Your task to perform on an android device: change the clock style Image 0: 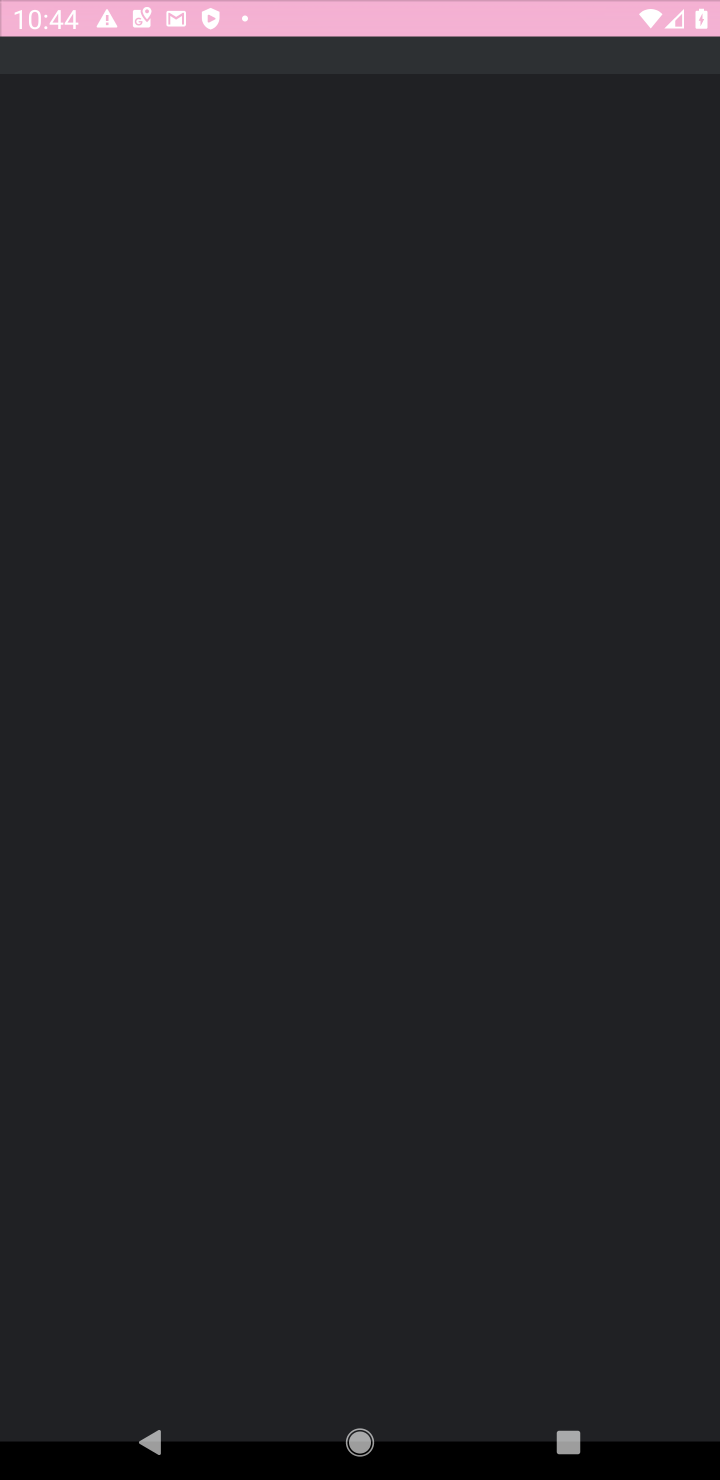
Step 0: press home button
Your task to perform on an android device: change the clock style Image 1: 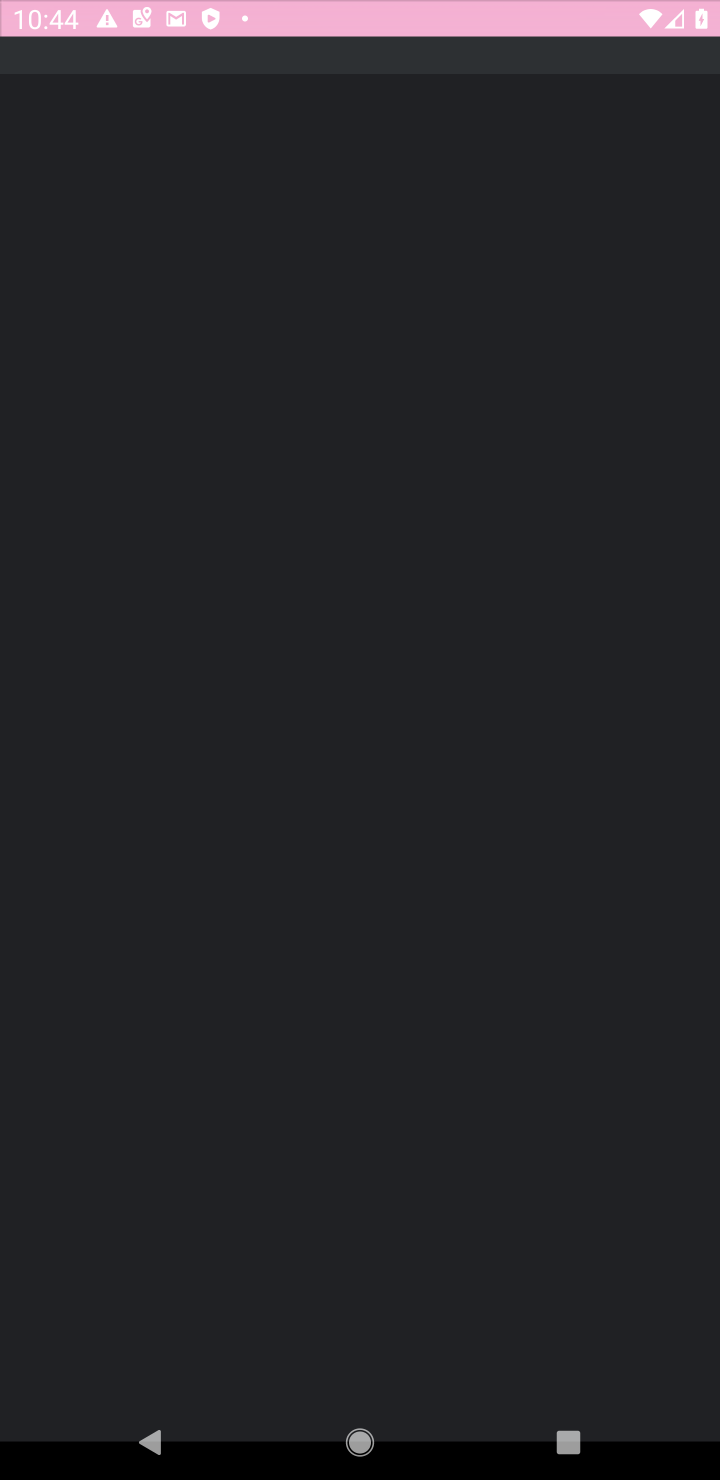
Step 1: click (525, 399)
Your task to perform on an android device: change the clock style Image 2: 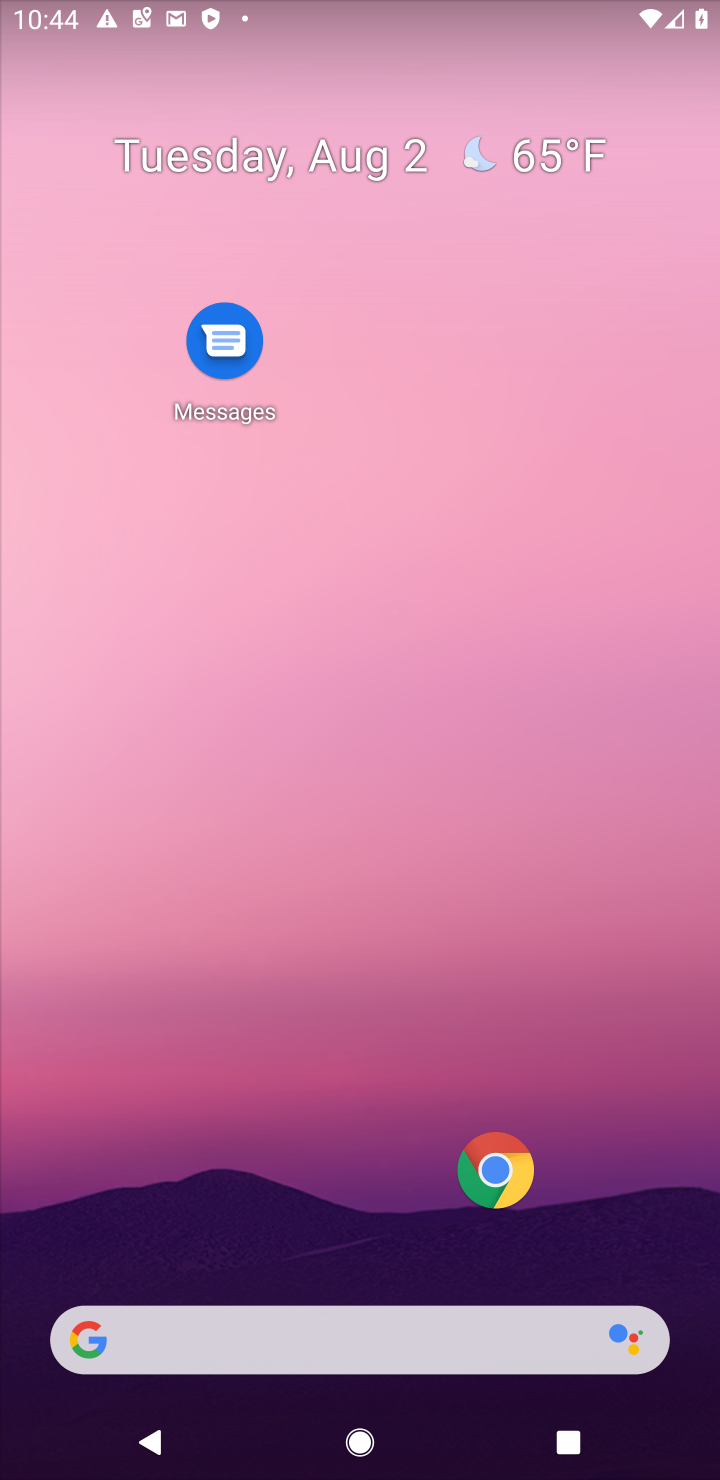
Step 2: drag from (285, 946) to (409, 364)
Your task to perform on an android device: change the clock style Image 3: 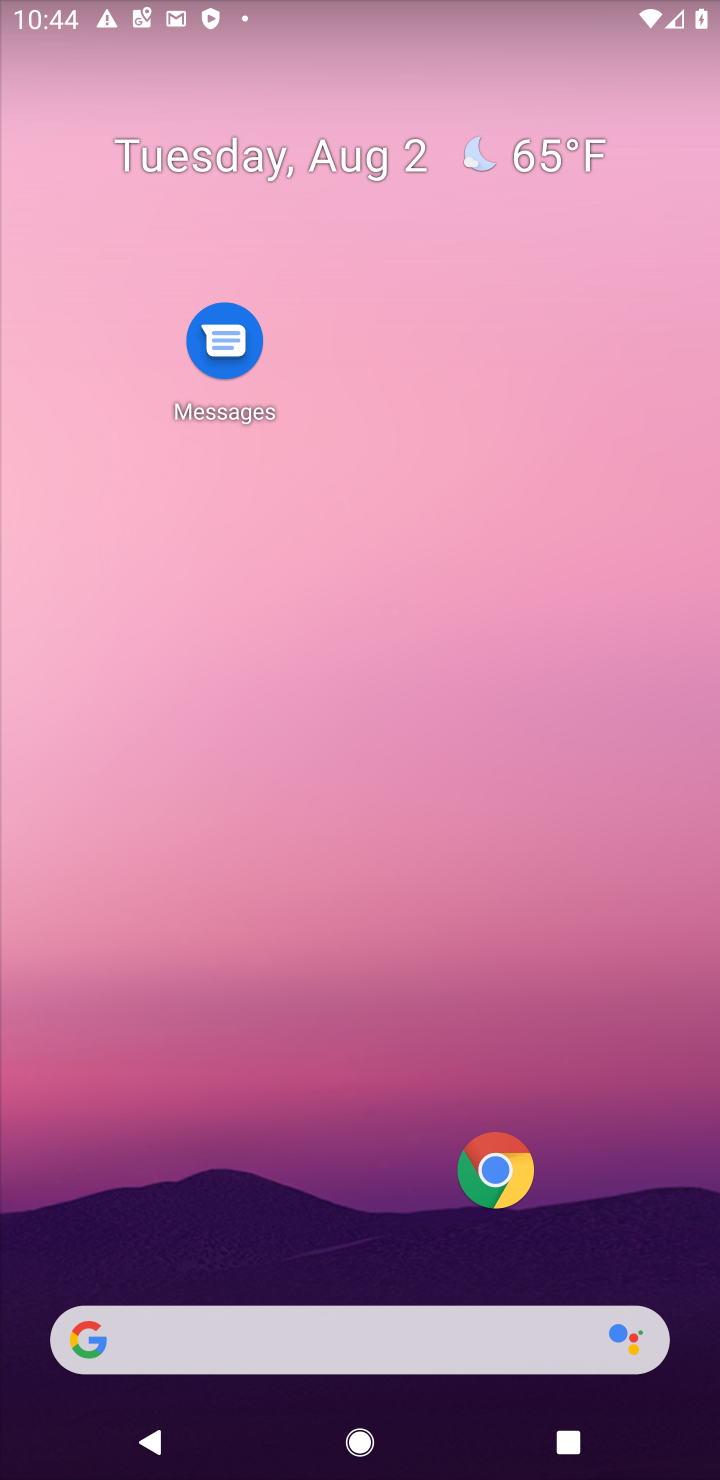
Step 3: drag from (366, 1188) to (289, 457)
Your task to perform on an android device: change the clock style Image 4: 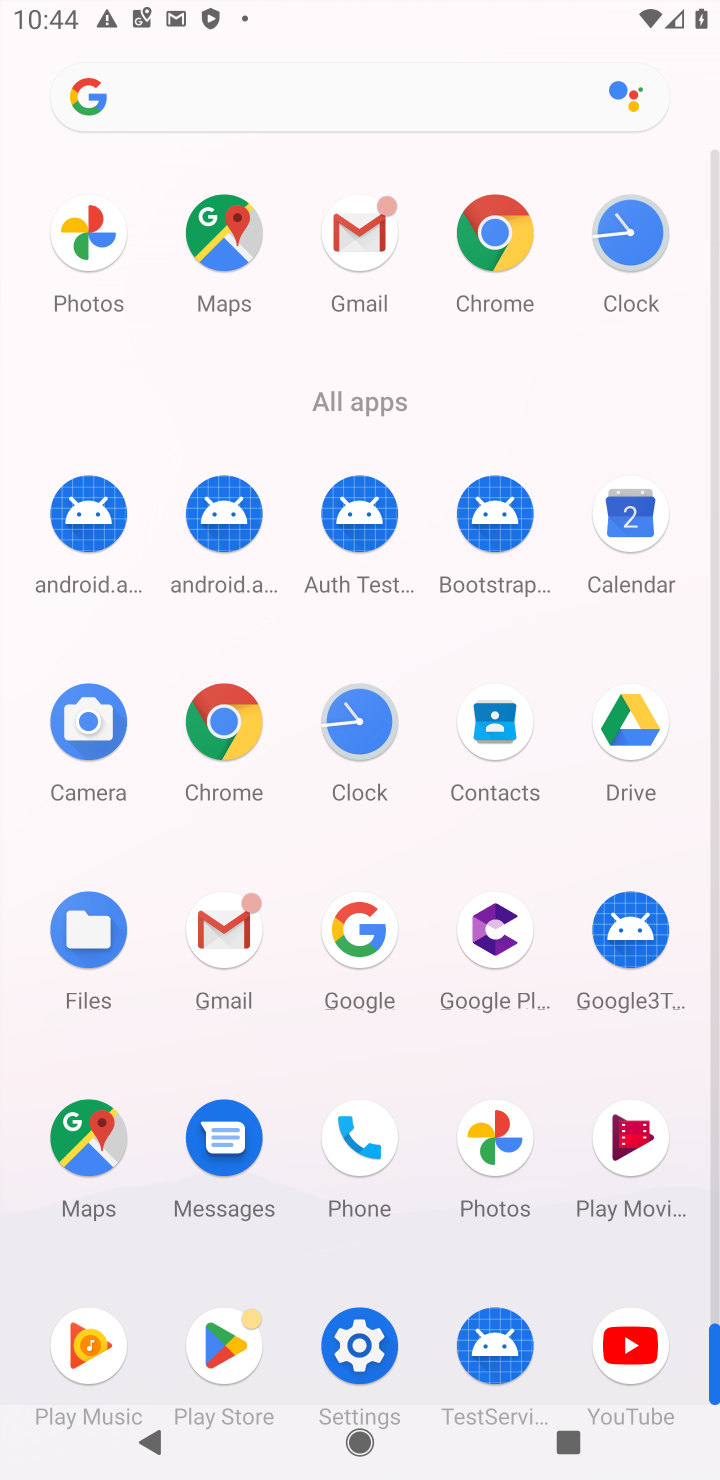
Step 4: drag from (407, 1185) to (392, 705)
Your task to perform on an android device: change the clock style Image 5: 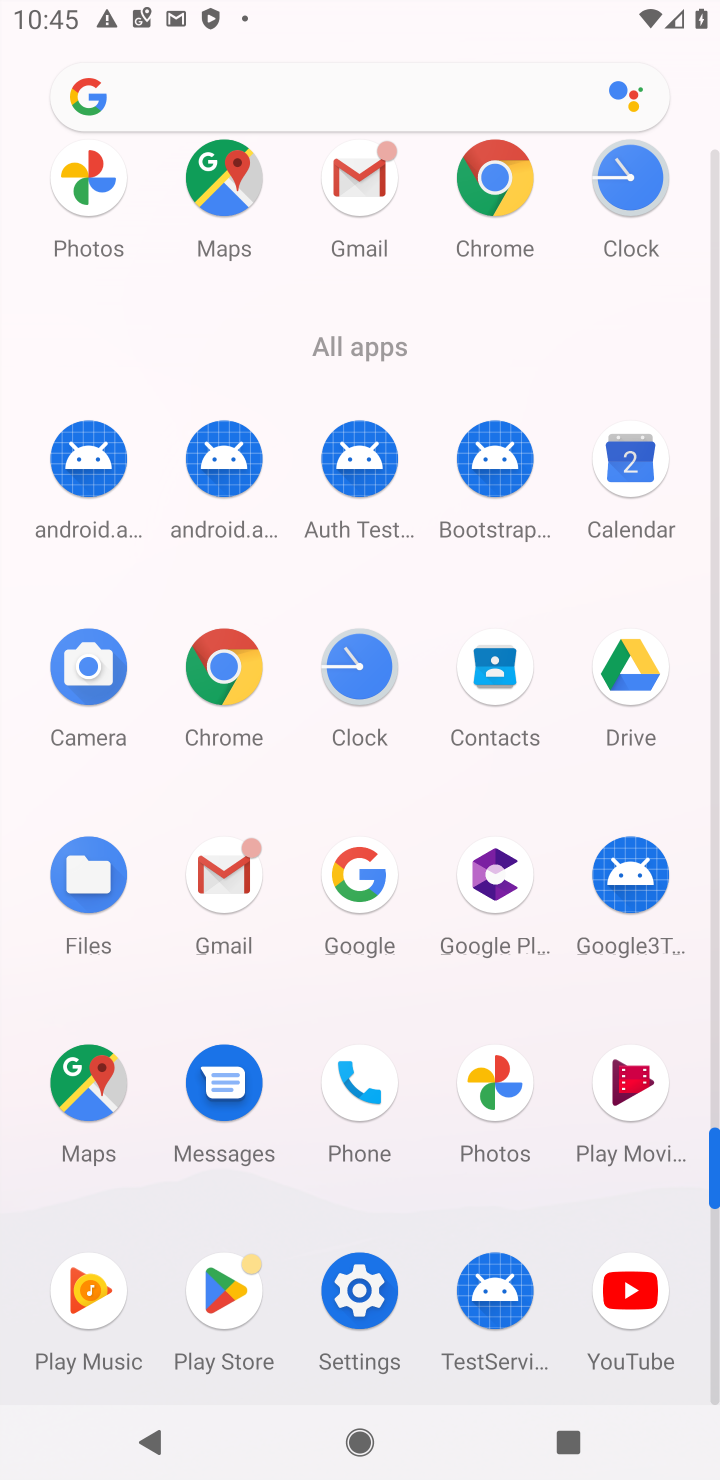
Step 5: click (338, 637)
Your task to perform on an android device: change the clock style Image 6: 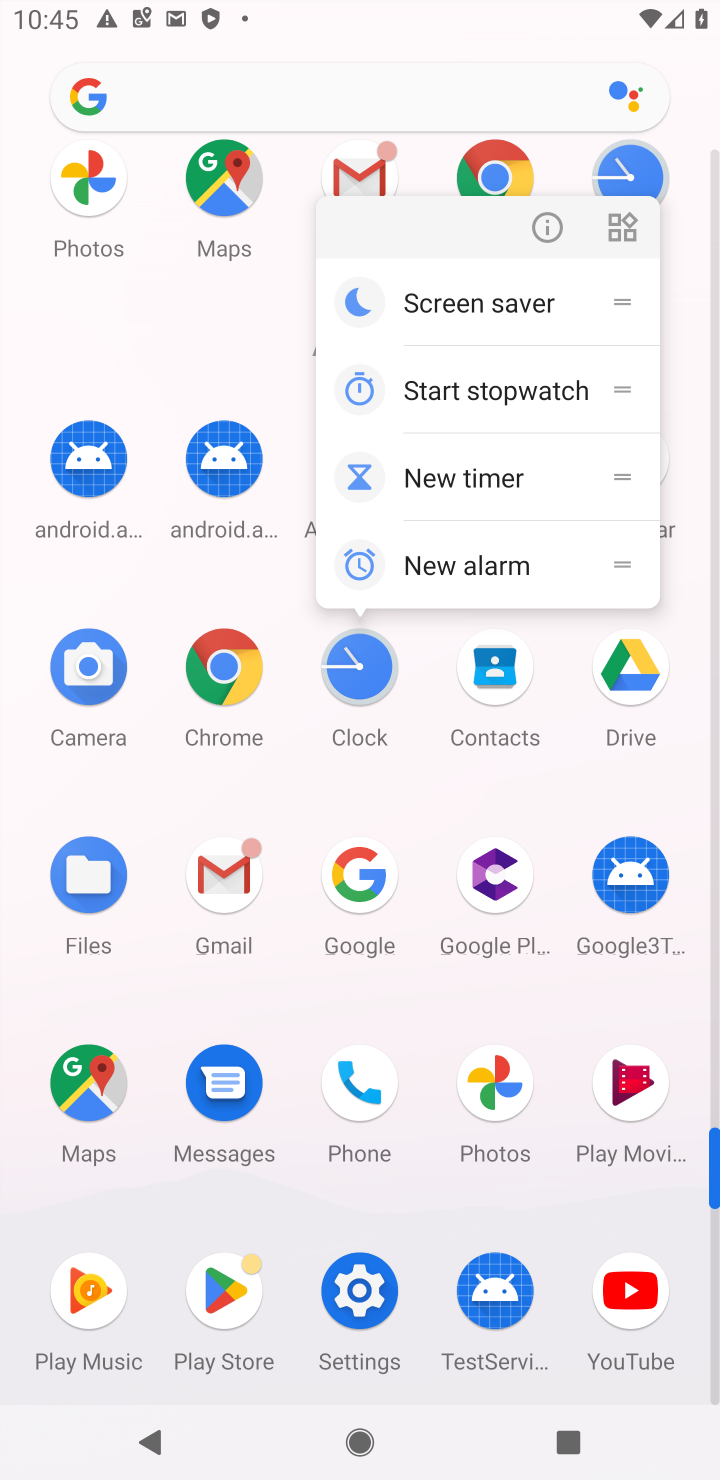
Step 6: click (544, 215)
Your task to perform on an android device: change the clock style Image 7: 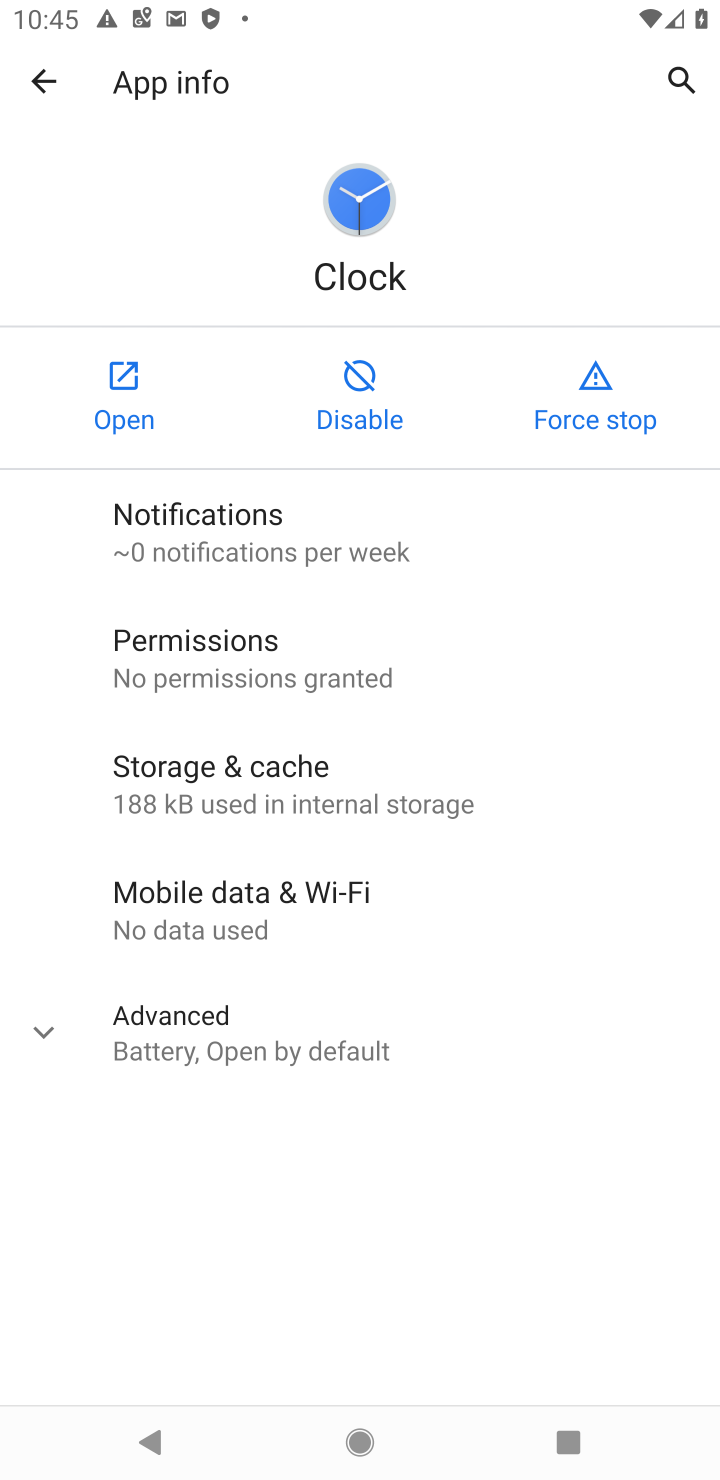
Step 7: click (121, 373)
Your task to perform on an android device: change the clock style Image 8: 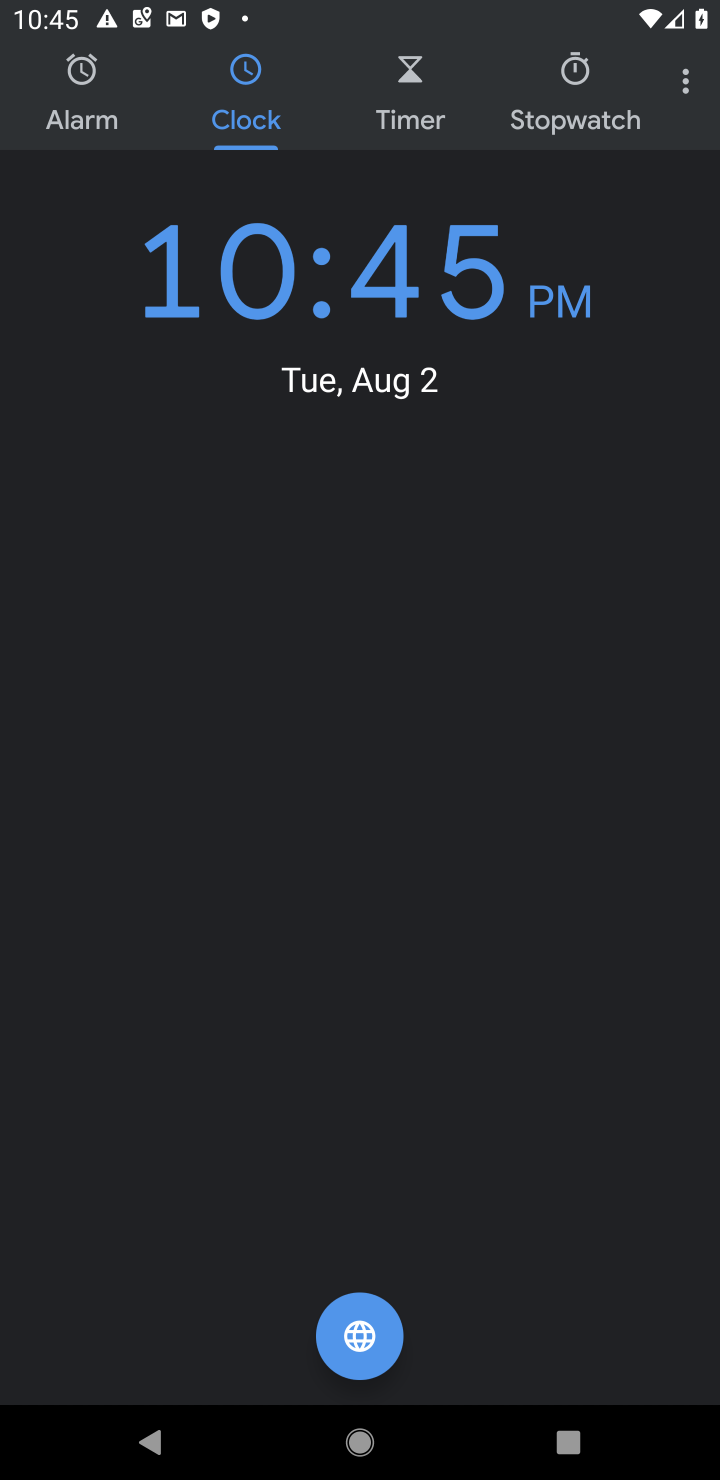
Step 8: click (676, 102)
Your task to perform on an android device: change the clock style Image 9: 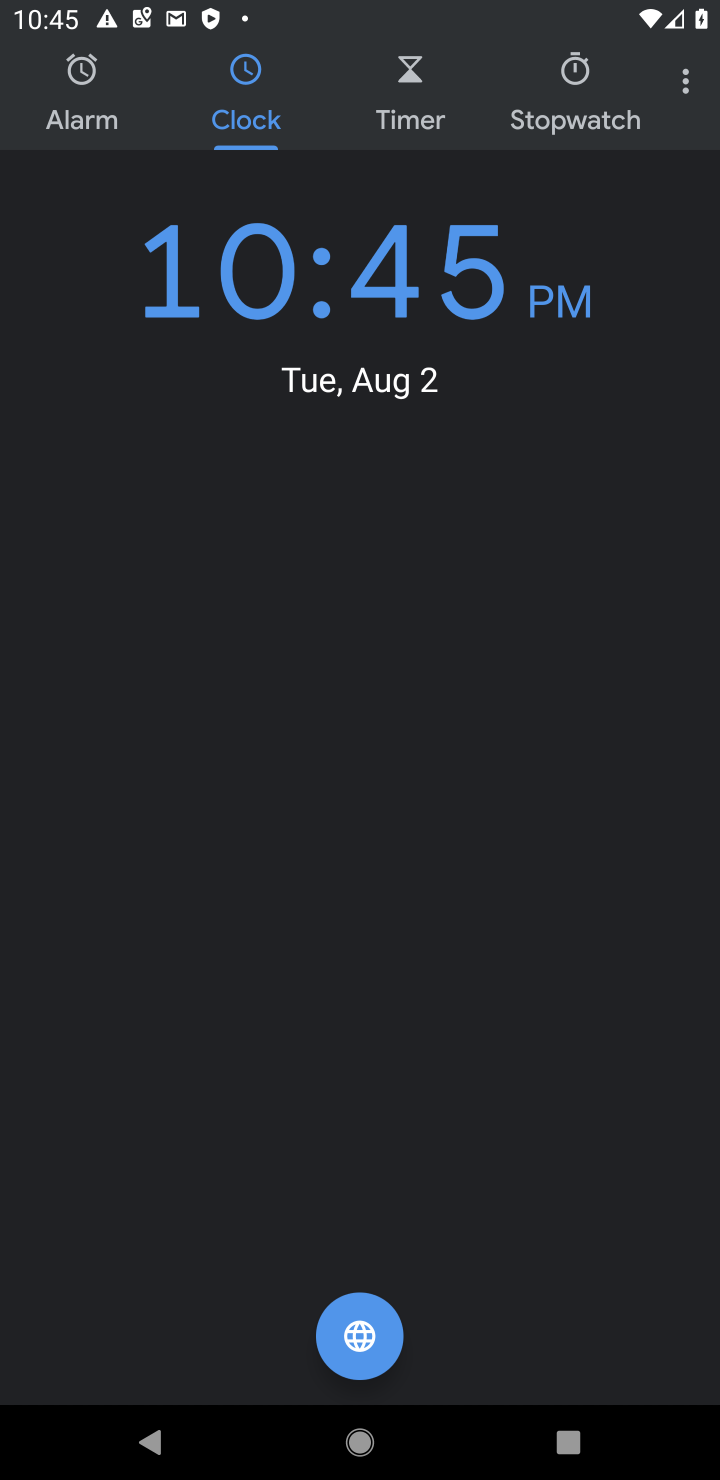
Step 9: click (674, 73)
Your task to perform on an android device: change the clock style Image 10: 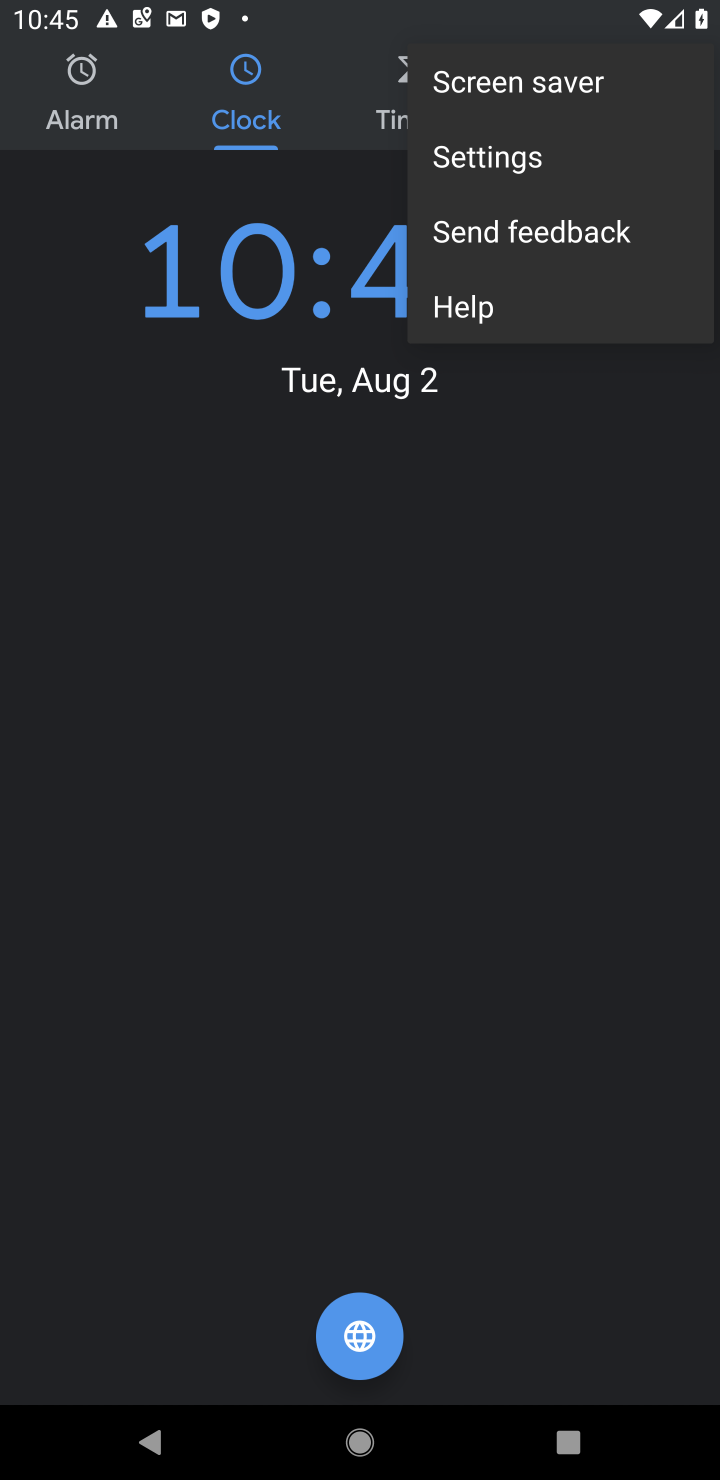
Step 10: click (515, 145)
Your task to perform on an android device: change the clock style Image 11: 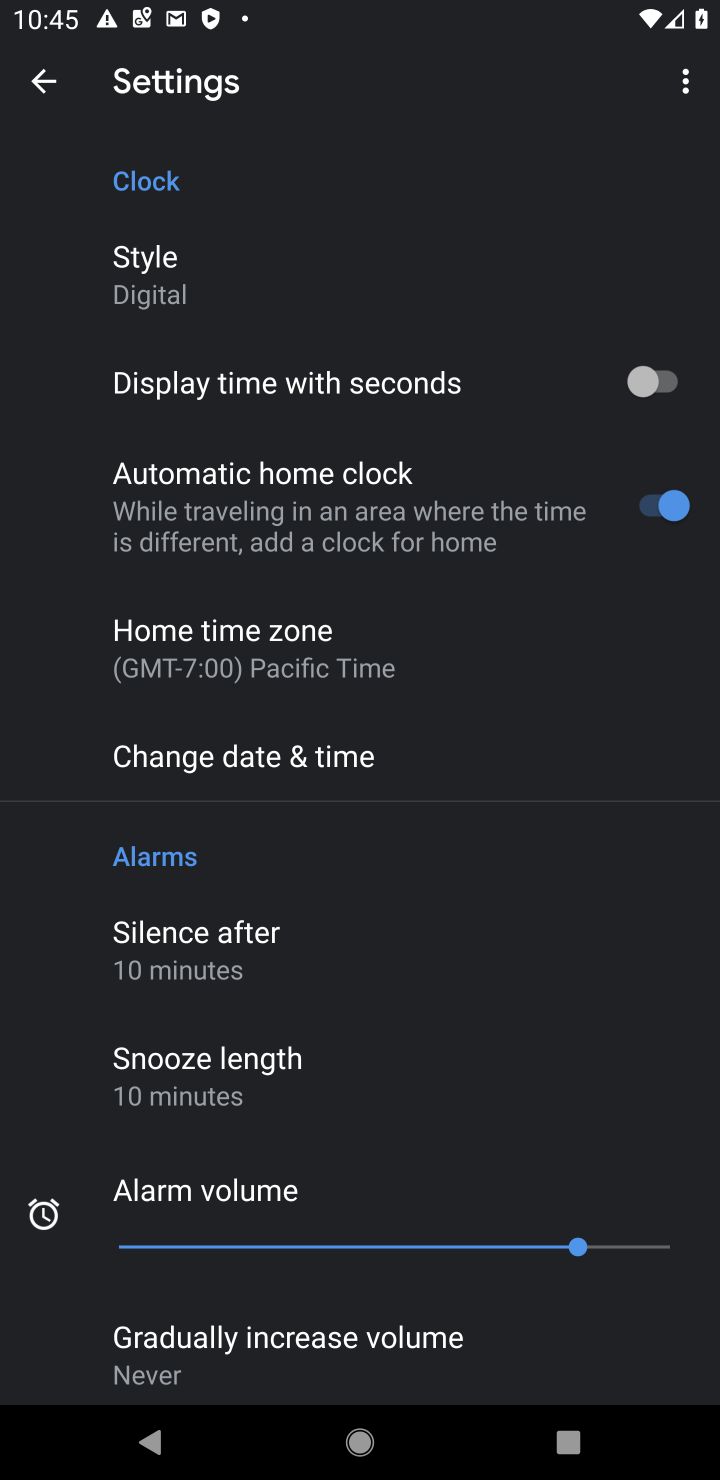
Step 11: click (221, 267)
Your task to perform on an android device: change the clock style Image 12: 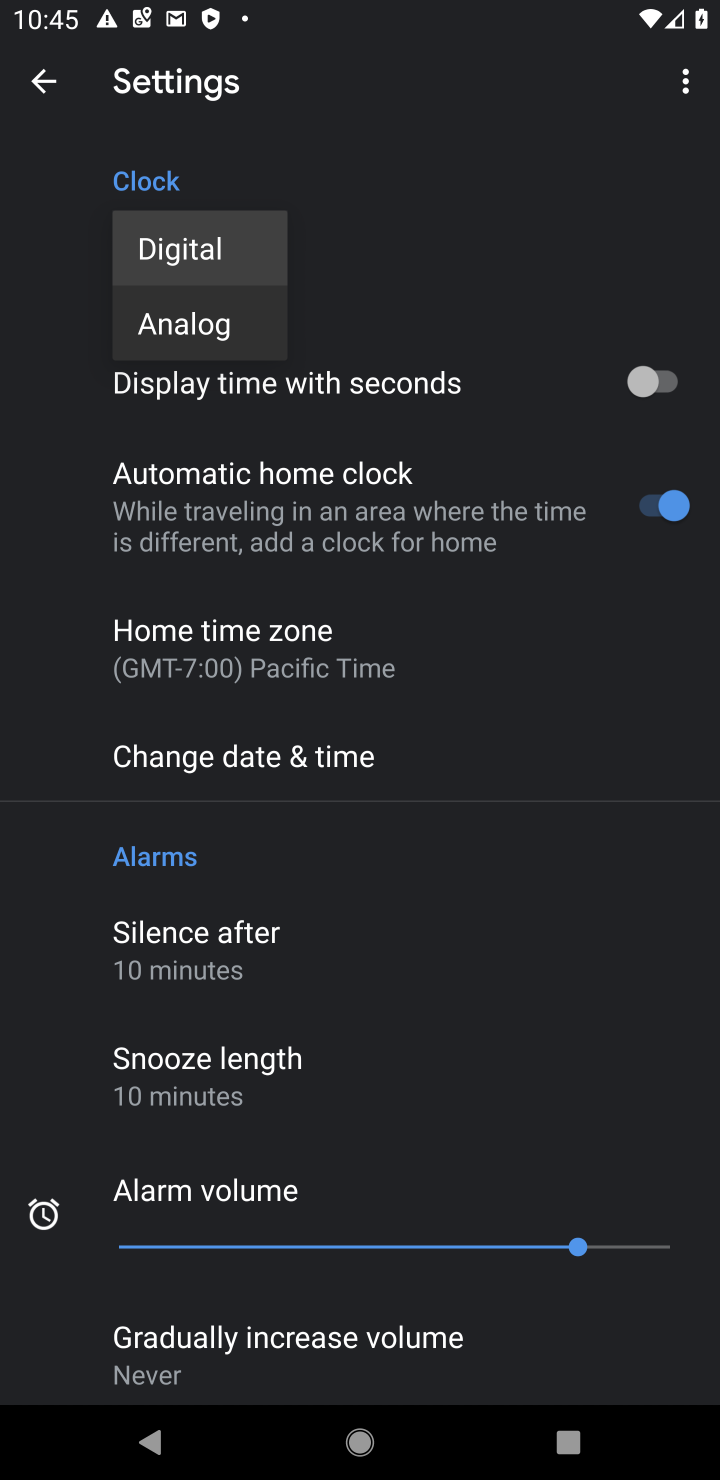
Step 12: click (218, 320)
Your task to perform on an android device: change the clock style Image 13: 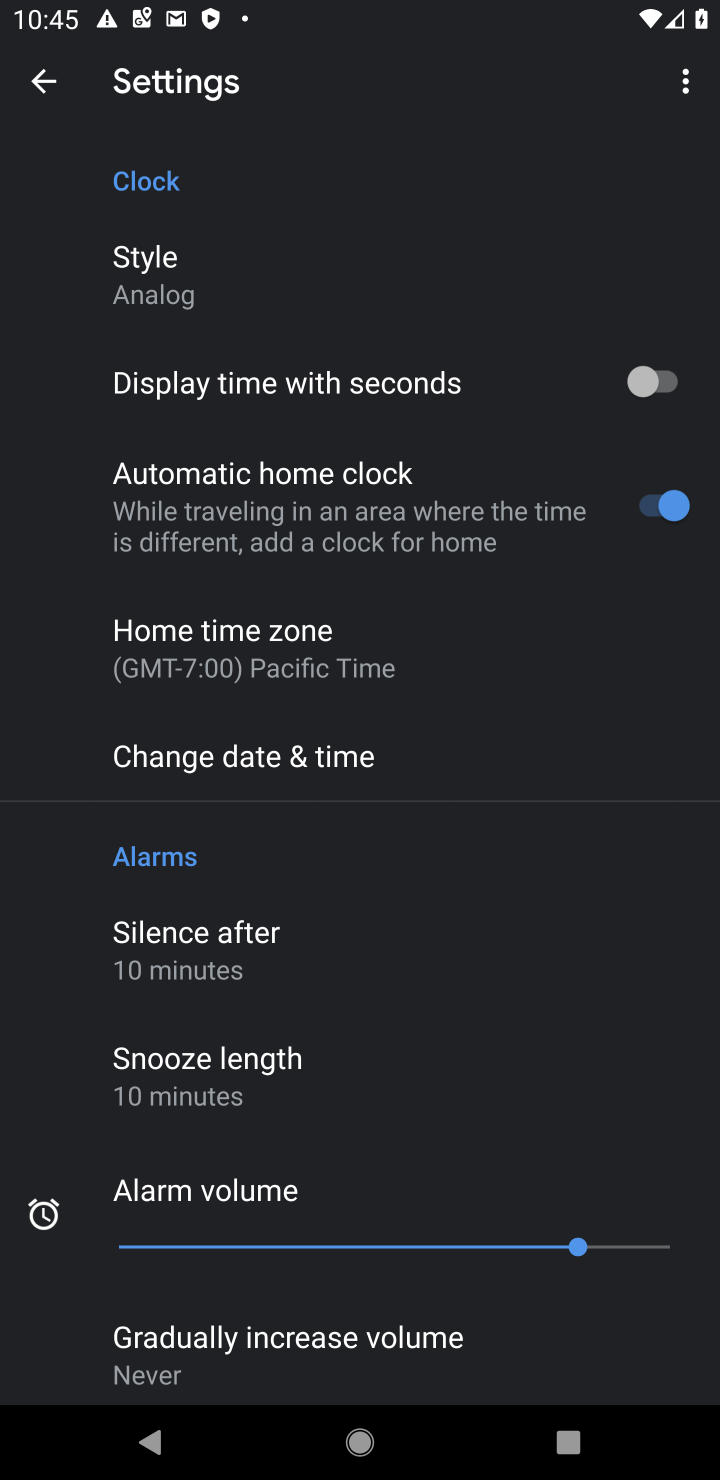
Step 13: task complete